Your task to perform on an android device: uninstall "PlayWell" Image 0: 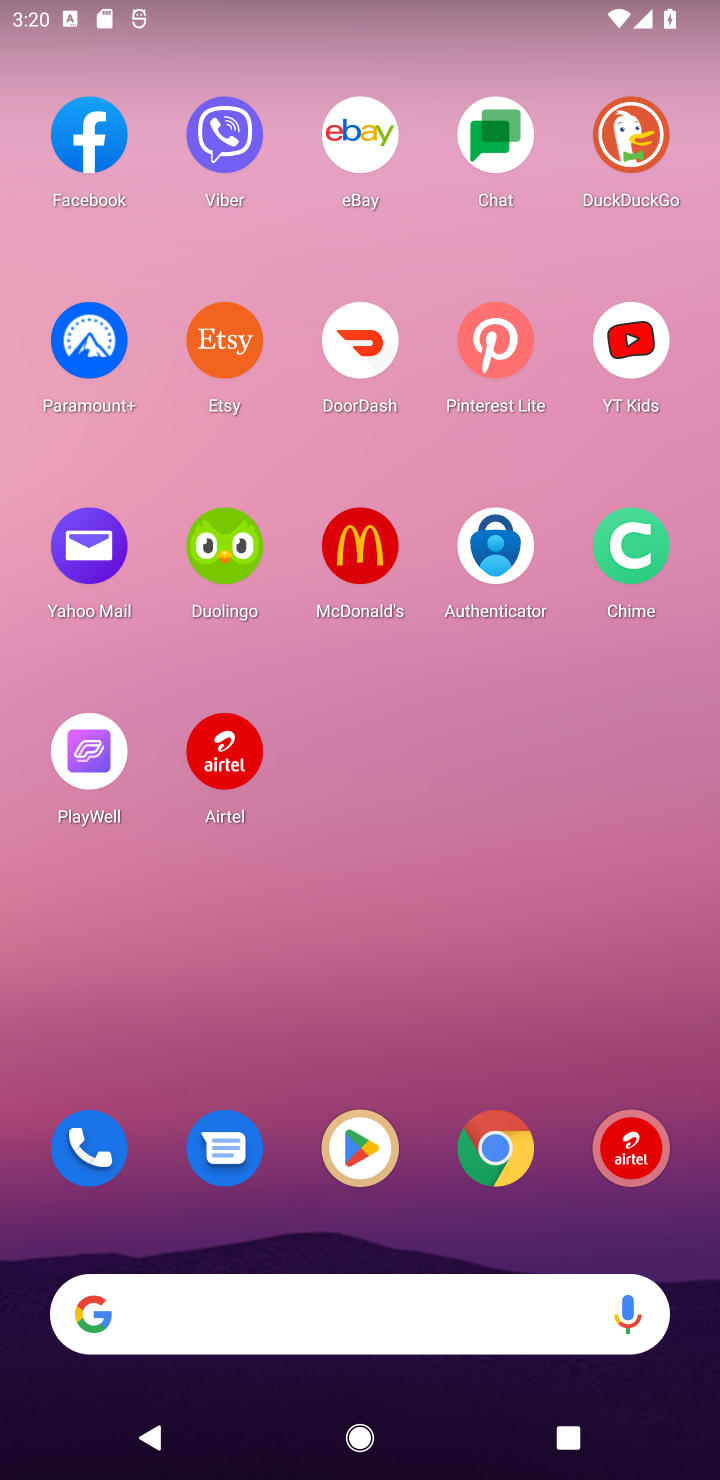
Step 0: click (353, 1135)
Your task to perform on an android device: uninstall "PlayWell" Image 1: 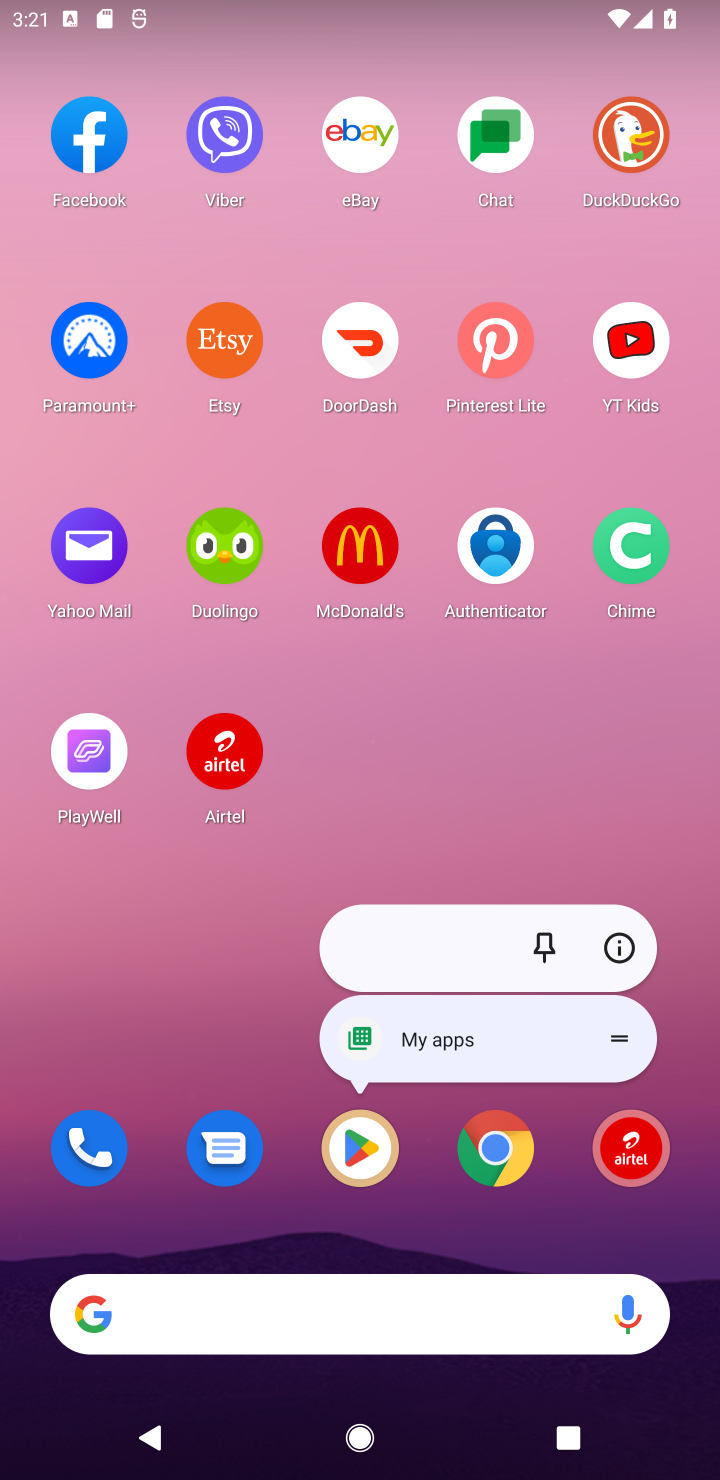
Step 1: click (346, 1162)
Your task to perform on an android device: uninstall "PlayWell" Image 2: 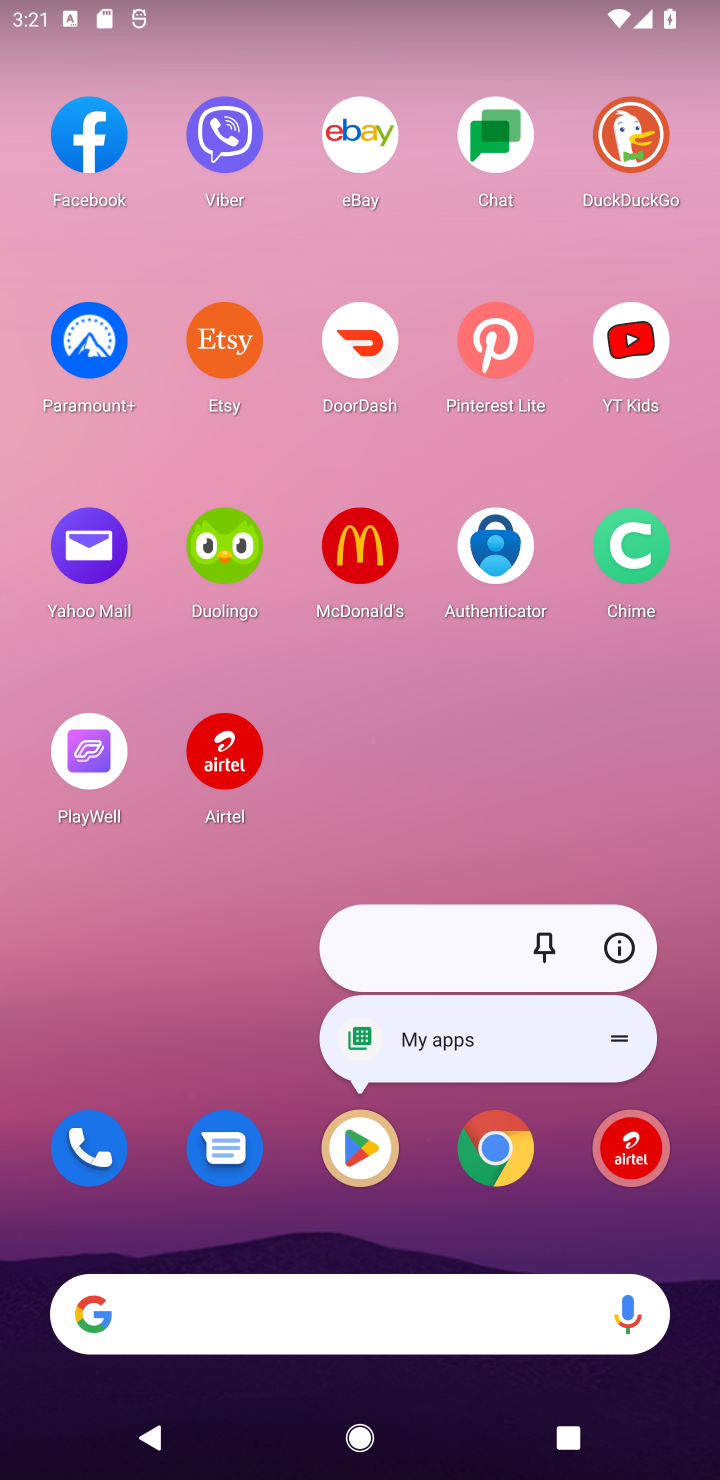
Step 2: click (346, 1154)
Your task to perform on an android device: uninstall "PlayWell" Image 3: 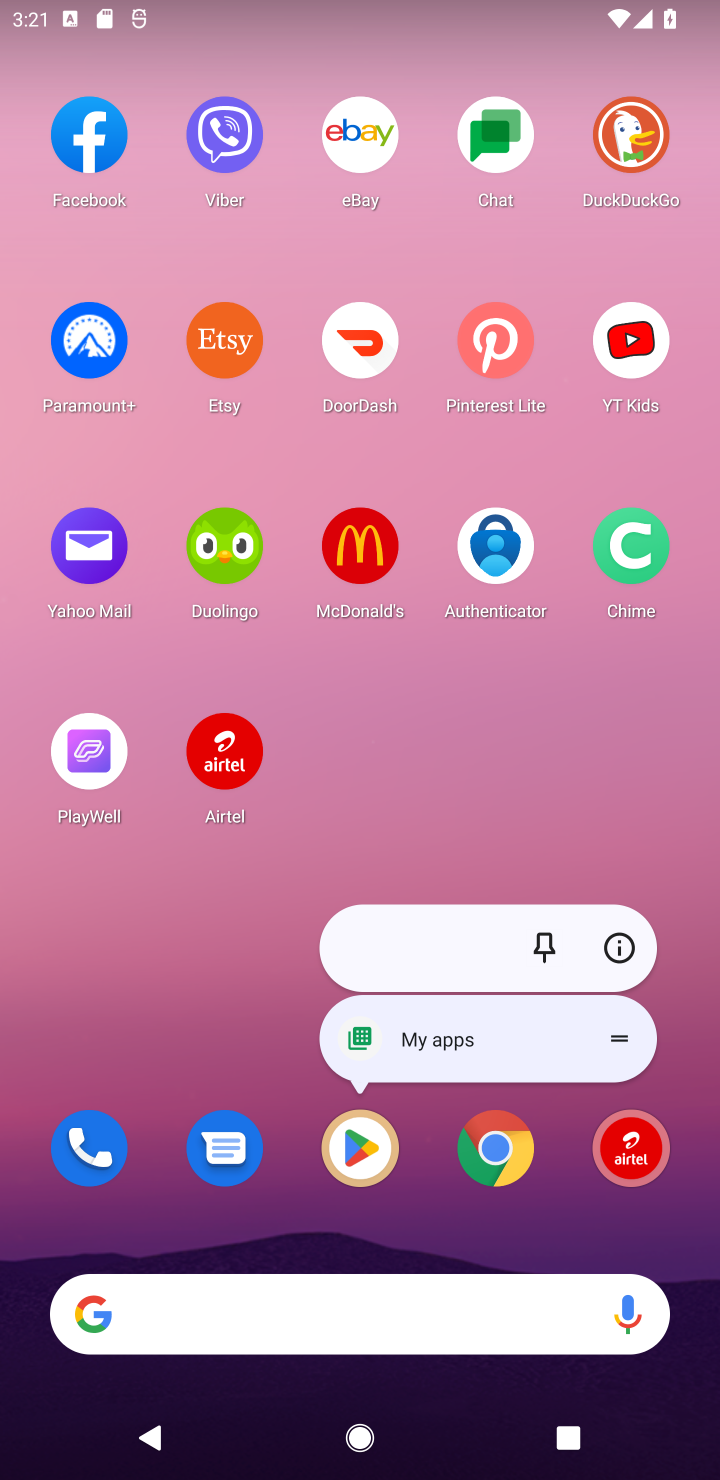
Step 3: drag from (270, 1078) to (313, 16)
Your task to perform on an android device: uninstall "PlayWell" Image 4: 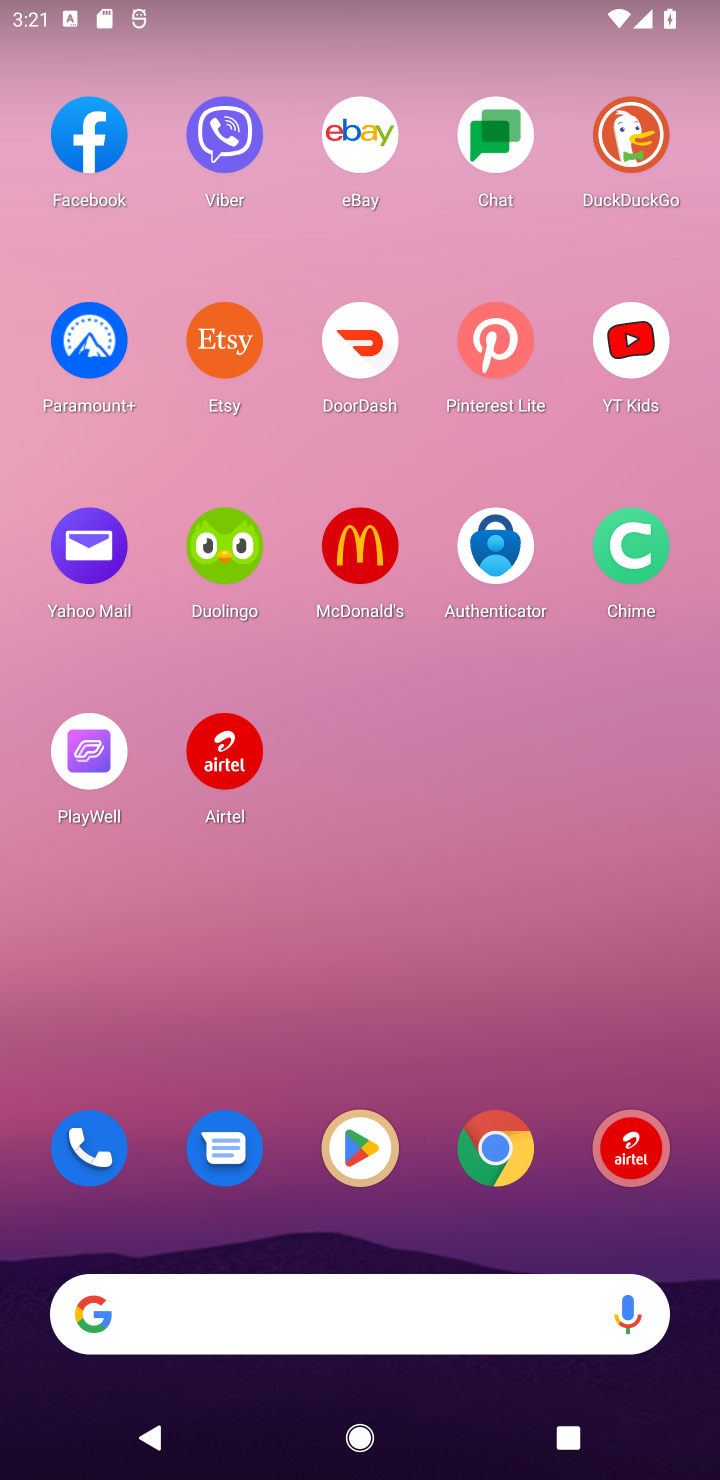
Step 4: drag from (228, 1022) to (242, 783)
Your task to perform on an android device: uninstall "PlayWell" Image 5: 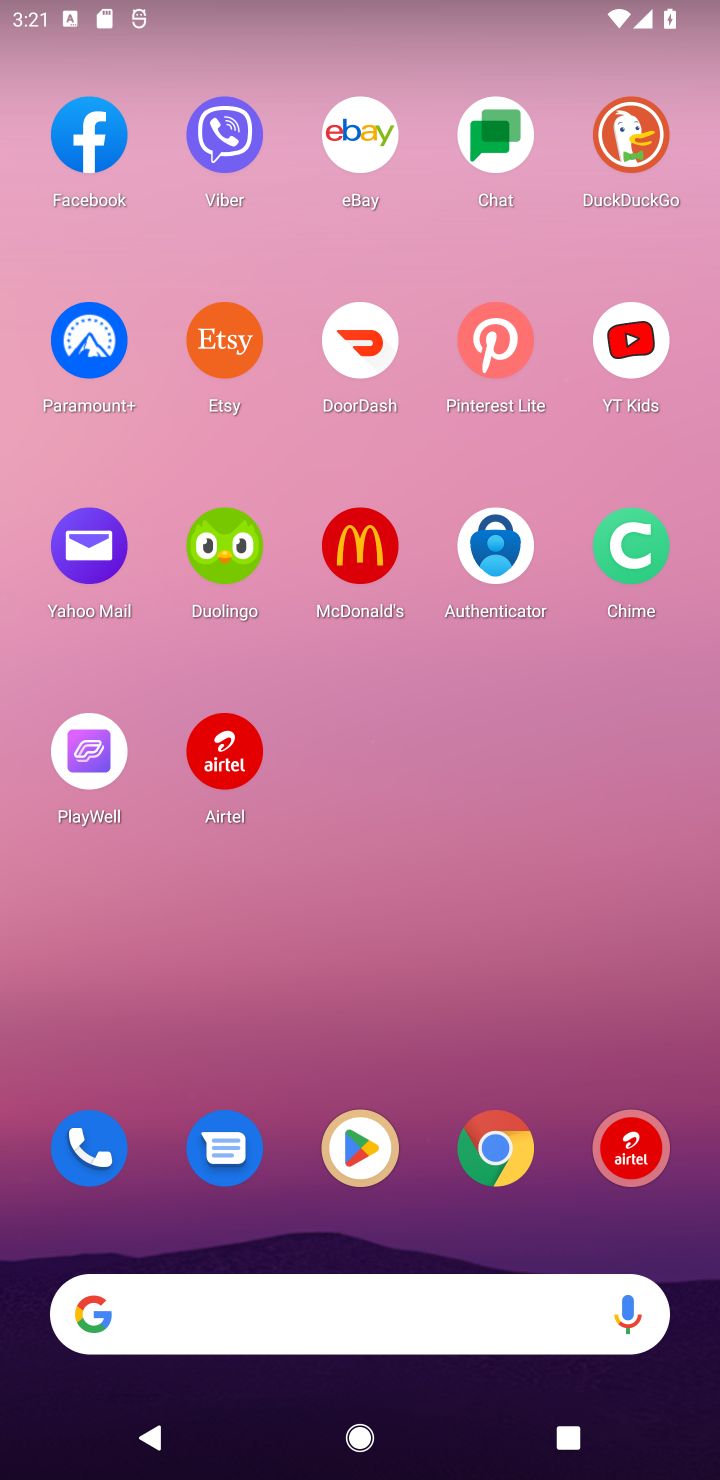
Step 5: drag from (347, 1162) to (382, 434)
Your task to perform on an android device: uninstall "PlayWell" Image 6: 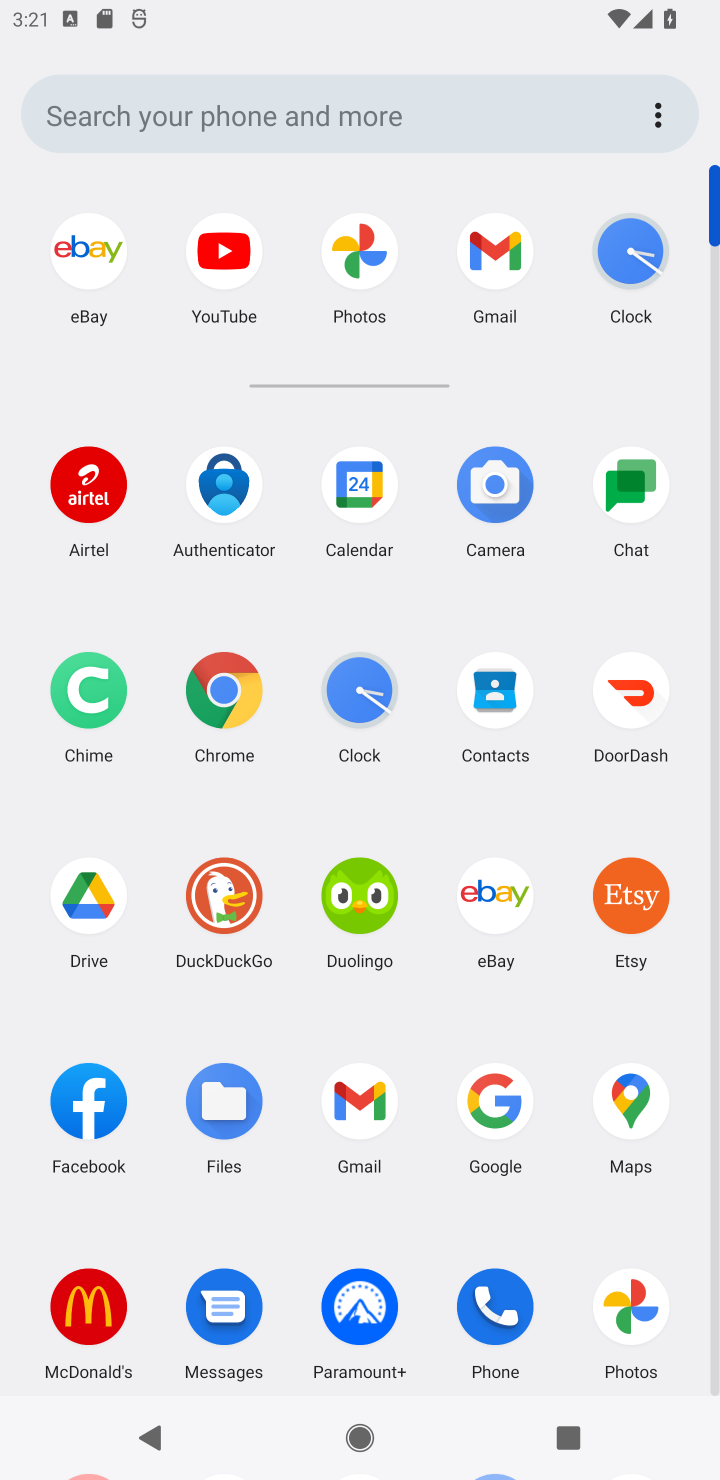
Step 6: drag from (404, 1242) to (428, 471)
Your task to perform on an android device: uninstall "PlayWell" Image 7: 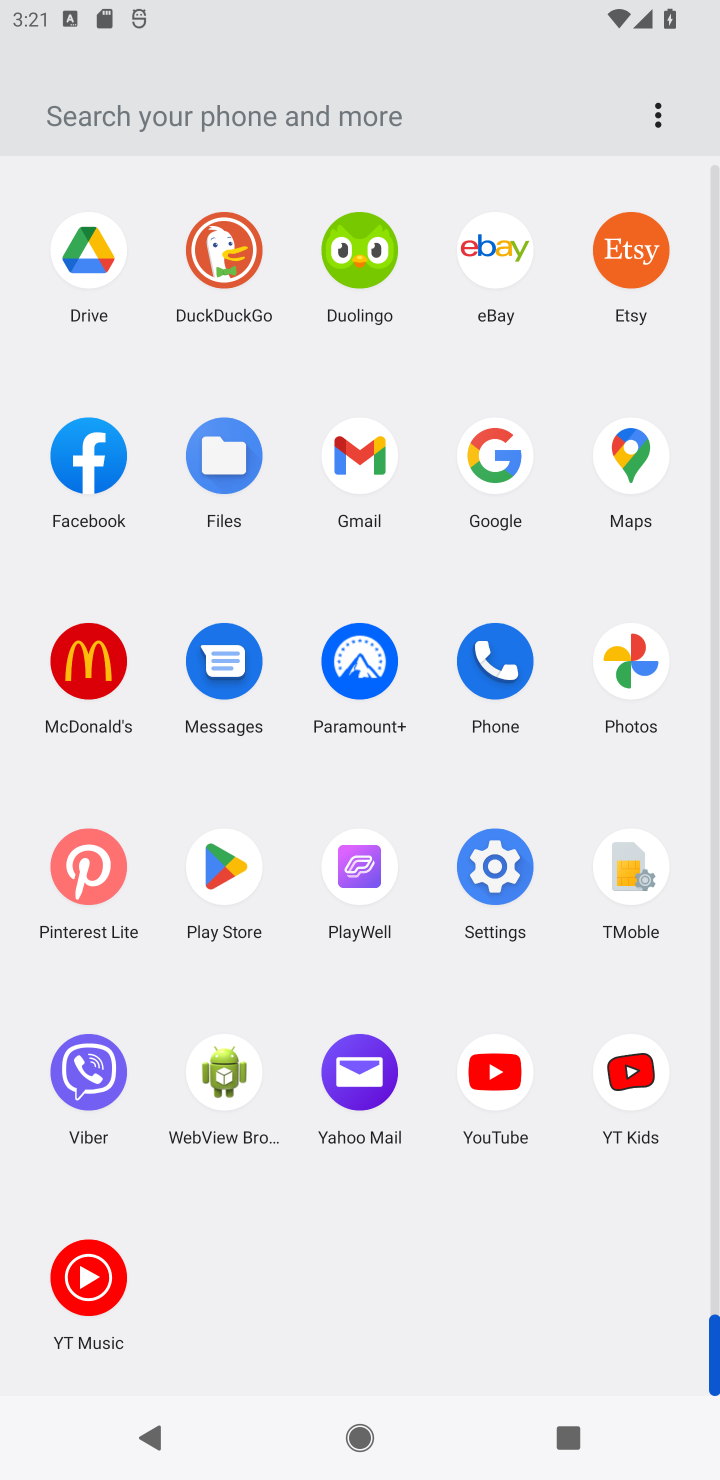
Step 7: click (201, 857)
Your task to perform on an android device: uninstall "PlayWell" Image 8: 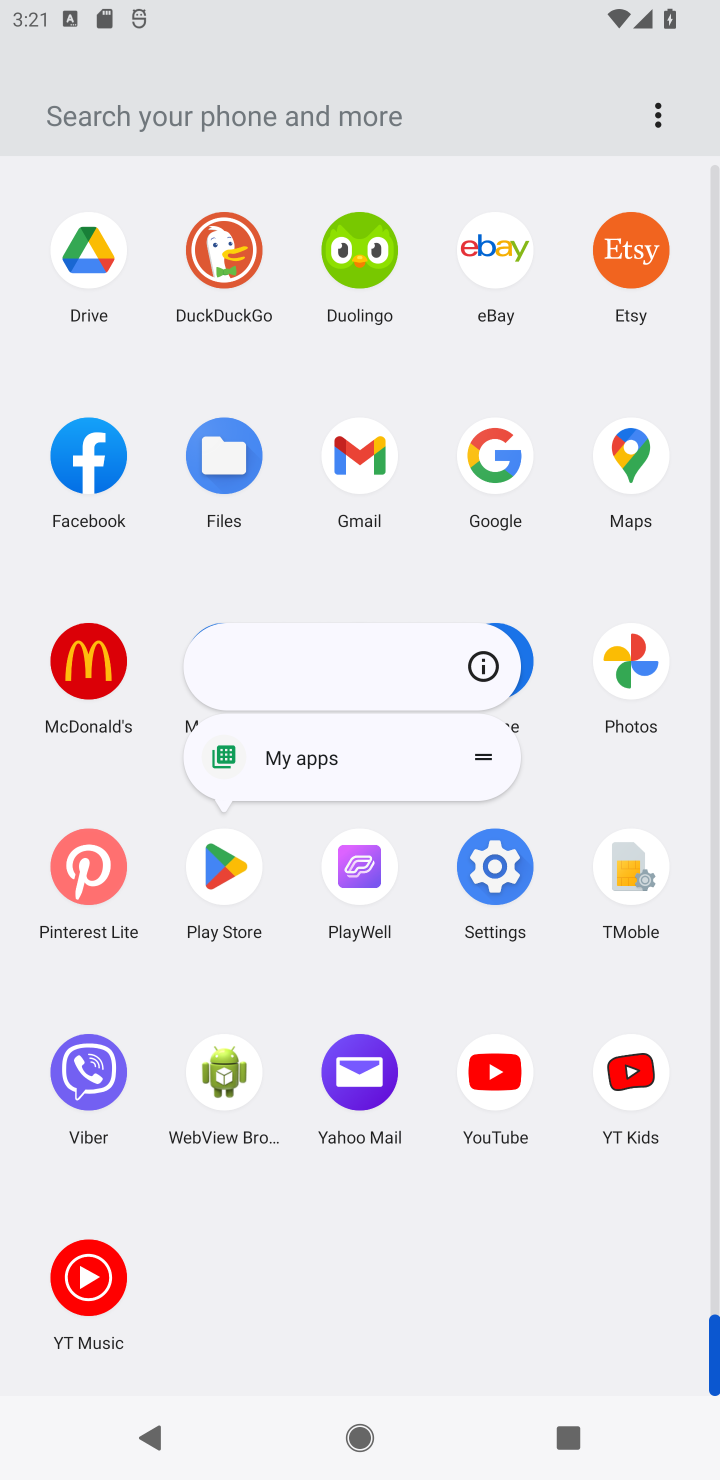
Step 8: click (215, 873)
Your task to perform on an android device: uninstall "PlayWell" Image 9: 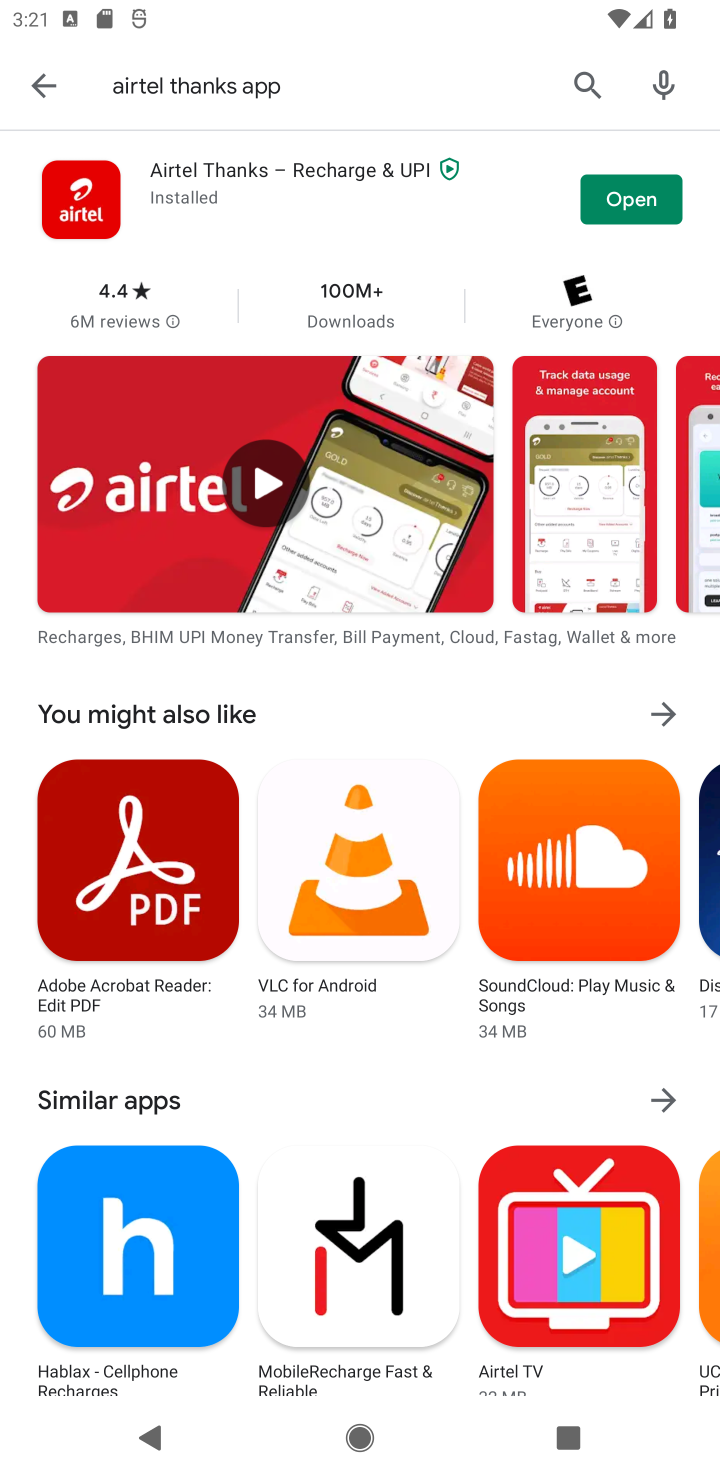
Step 9: click (25, 57)
Your task to perform on an android device: uninstall "PlayWell" Image 10: 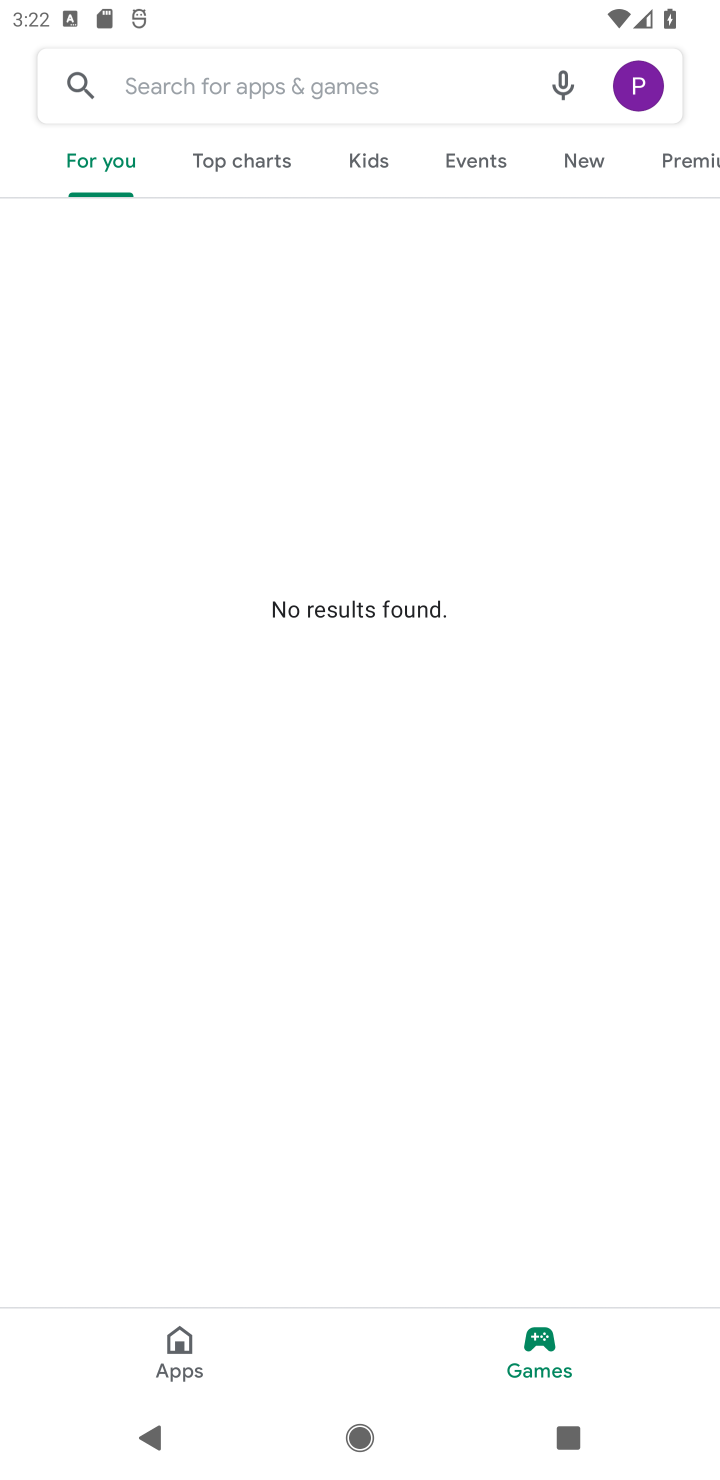
Step 10: click (268, 56)
Your task to perform on an android device: uninstall "PlayWell" Image 11: 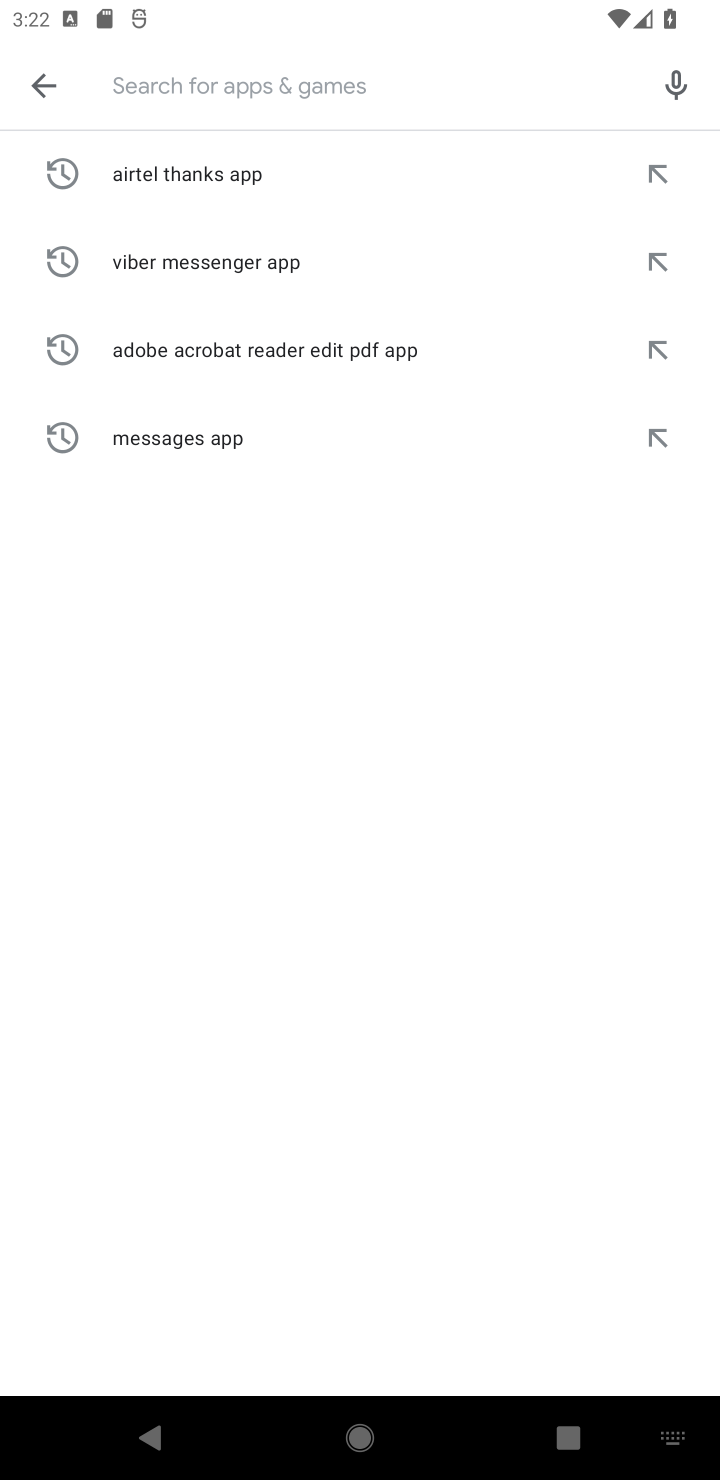
Step 11: type "PlayWell "
Your task to perform on an android device: uninstall "PlayWell" Image 12: 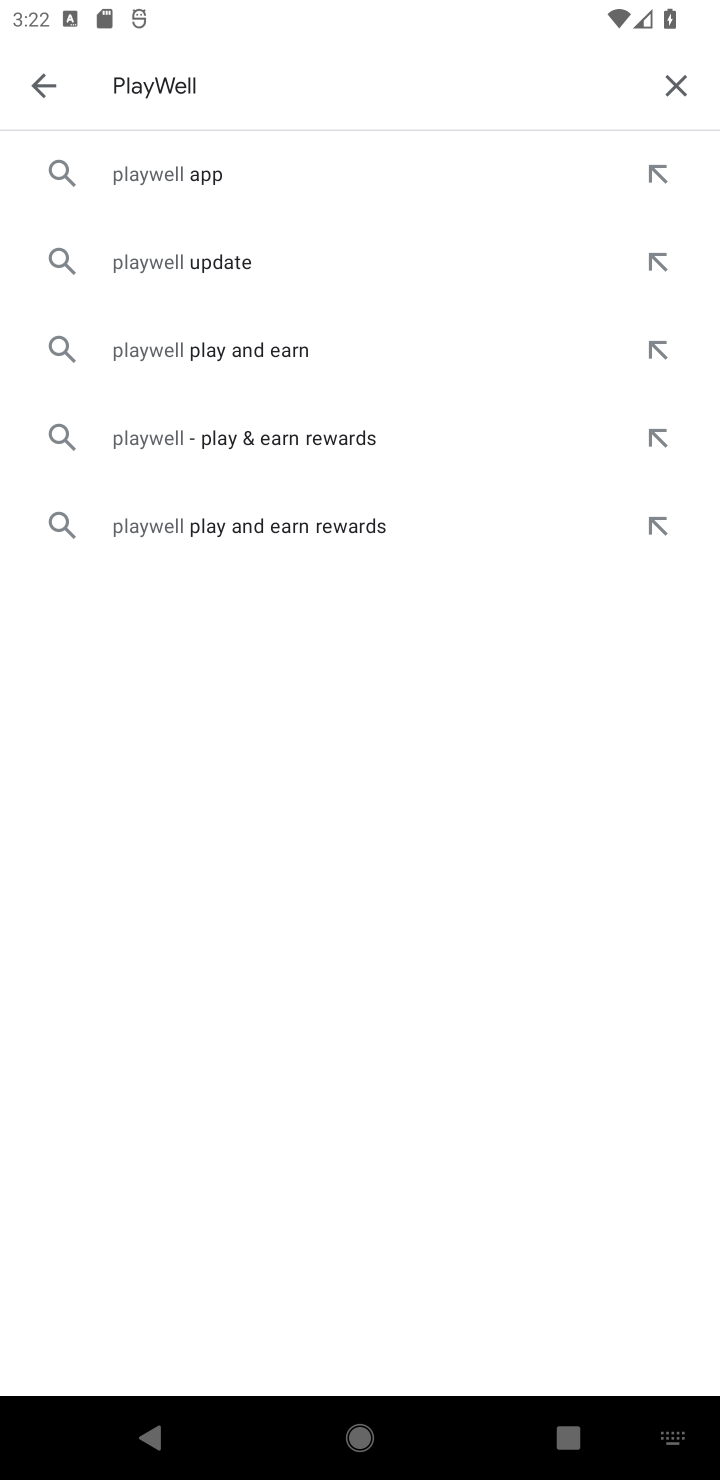
Step 12: click (301, 182)
Your task to perform on an android device: uninstall "PlayWell" Image 13: 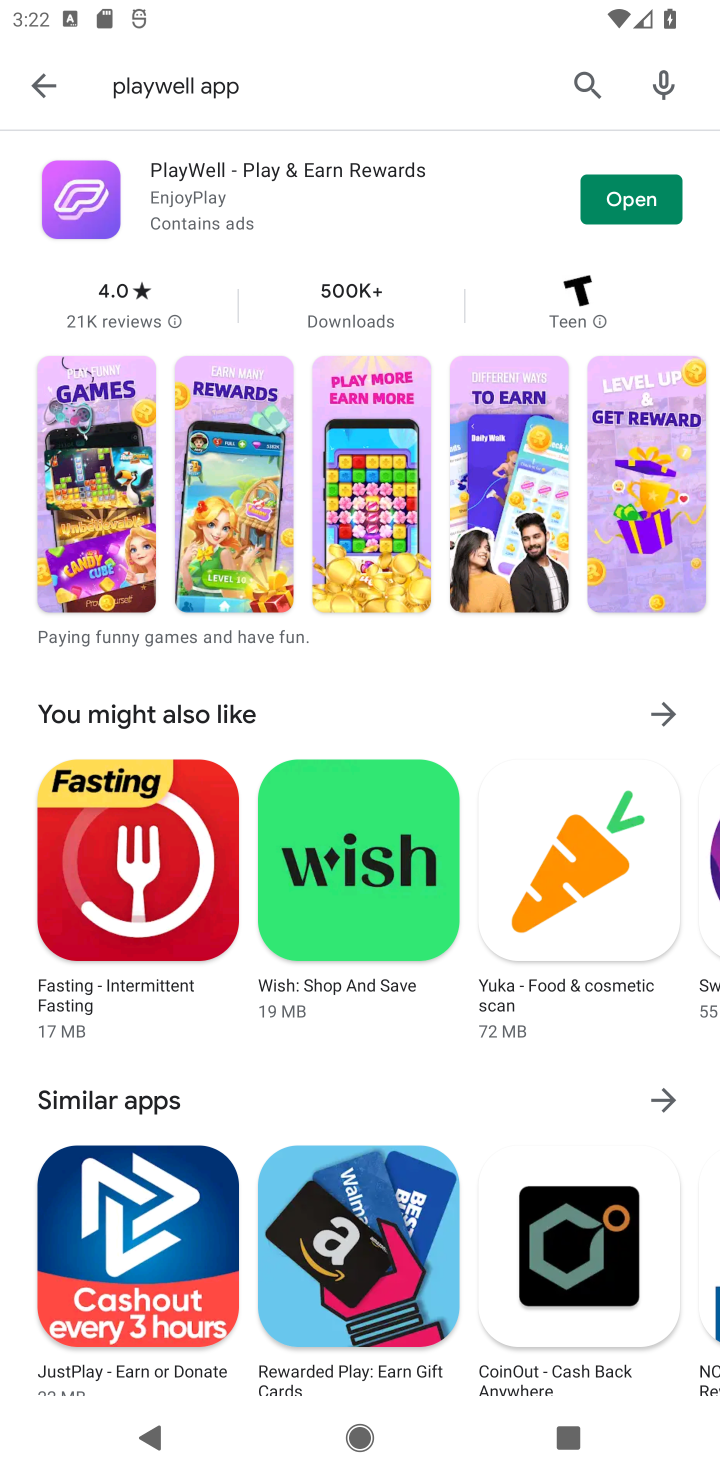
Step 13: click (319, 196)
Your task to perform on an android device: uninstall "PlayWell" Image 14: 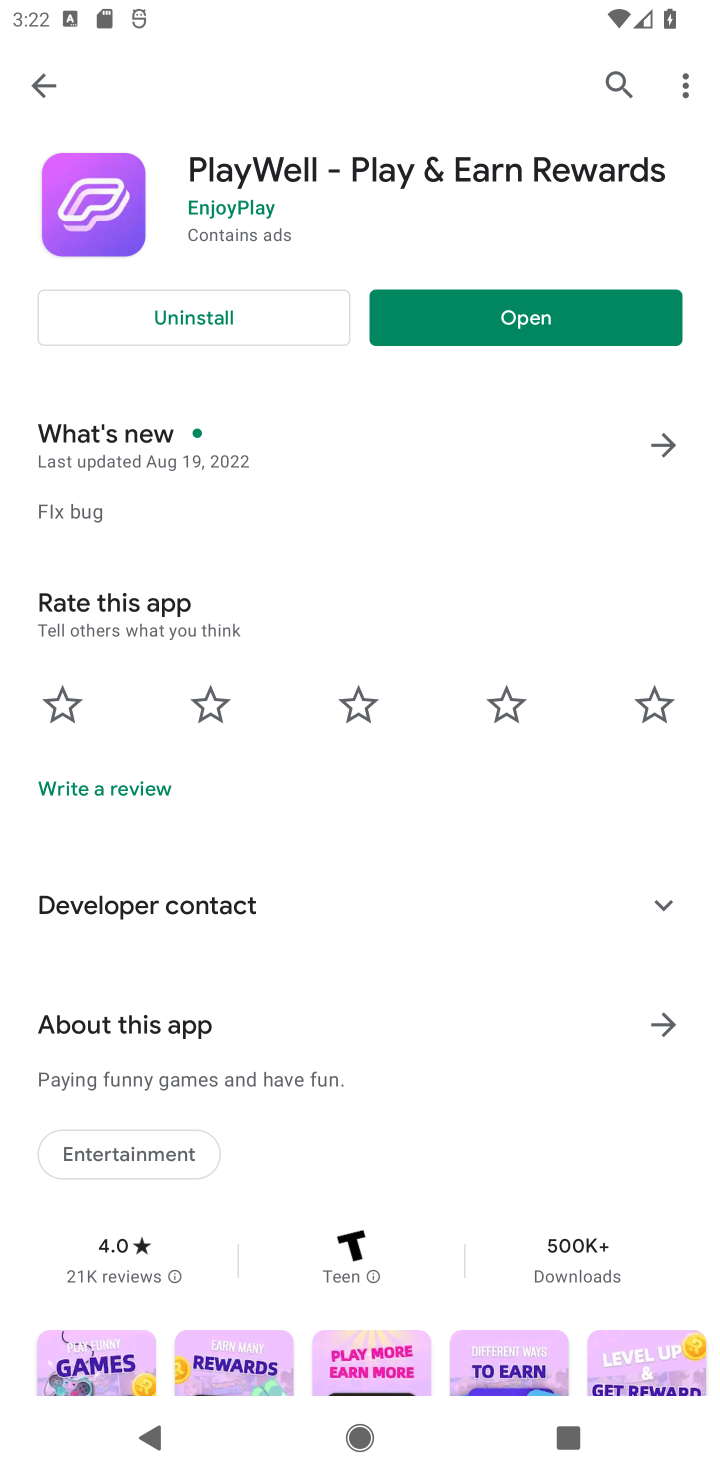
Step 14: click (134, 319)
Your task to perform on an android device: uninstall "PlayWell" Image 15: 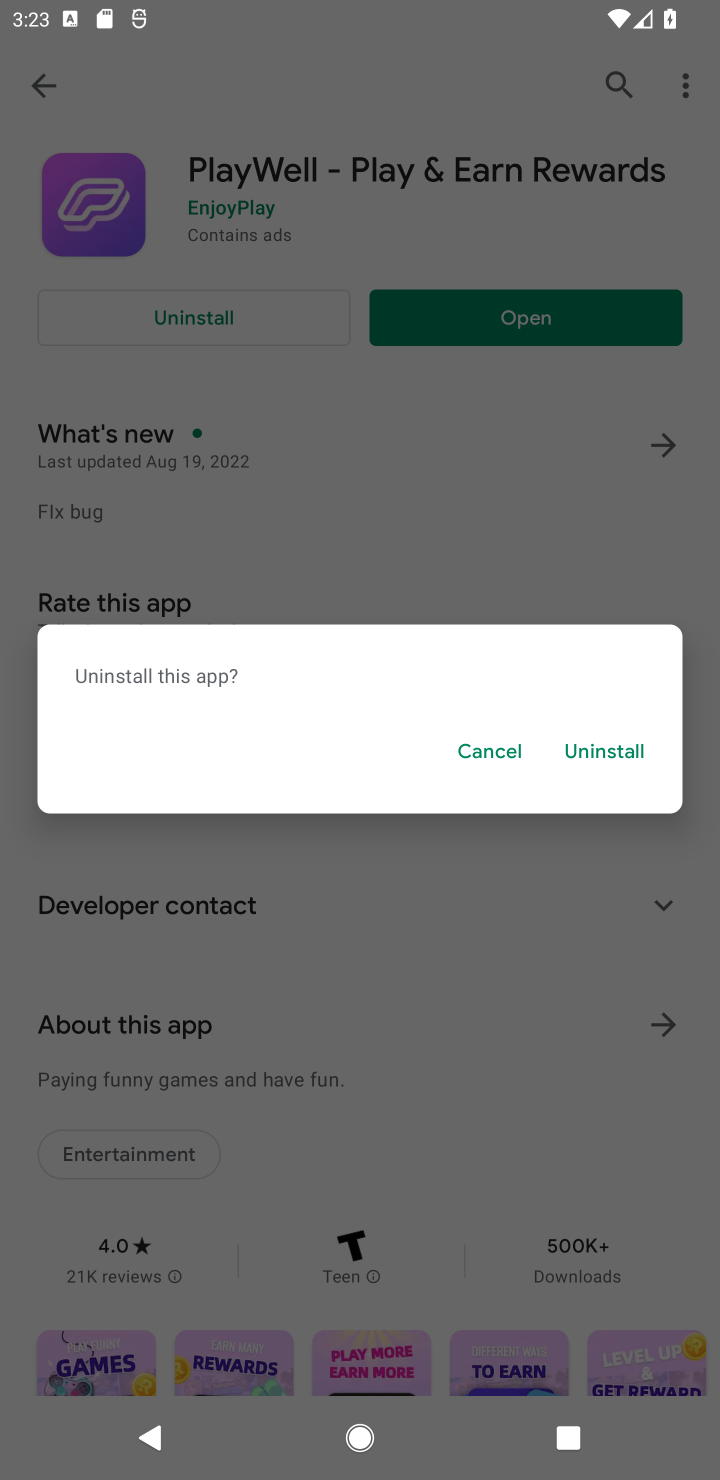
Step 15: click (595, 755)
Your task to perform on an android device: uninstall "PlayWell" Image 16: 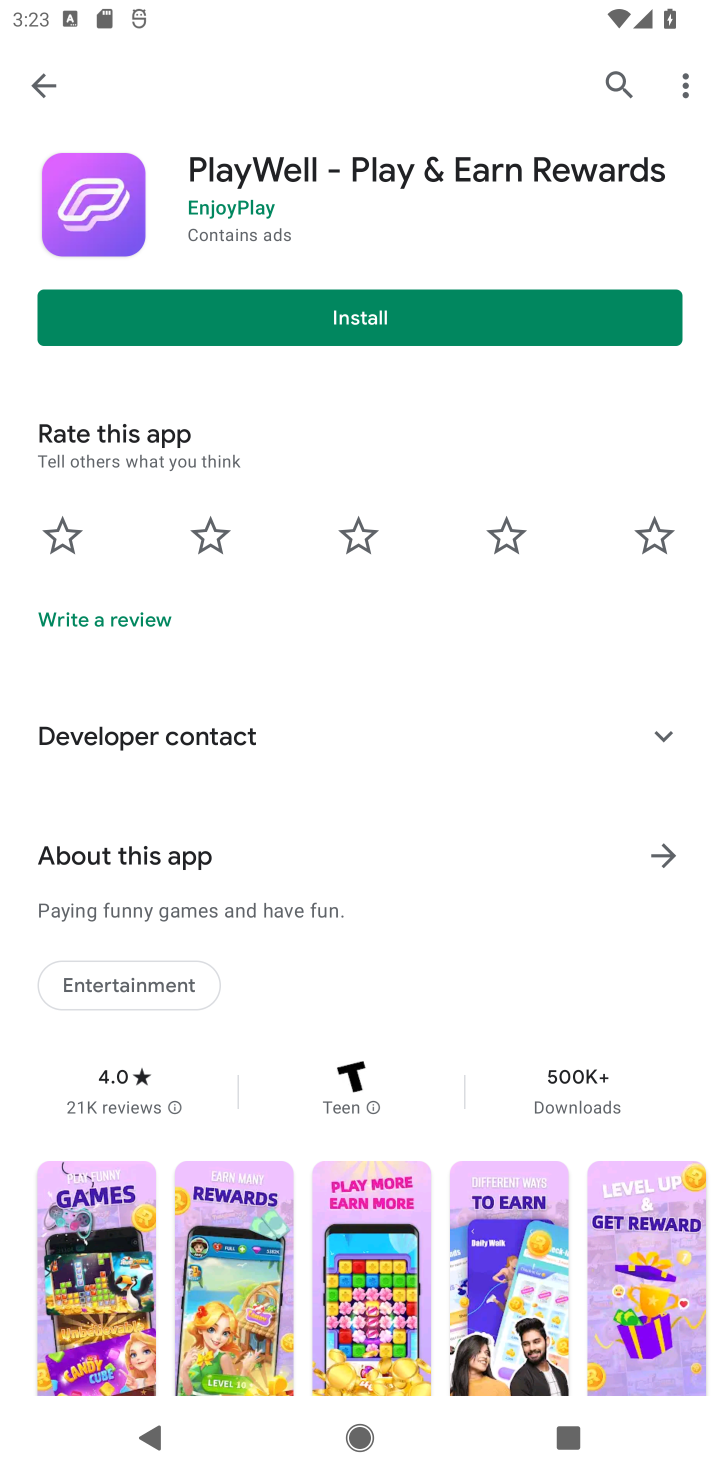
Step 16: task complete